Your task to perform on an android device: change keyboard looks Image 0: 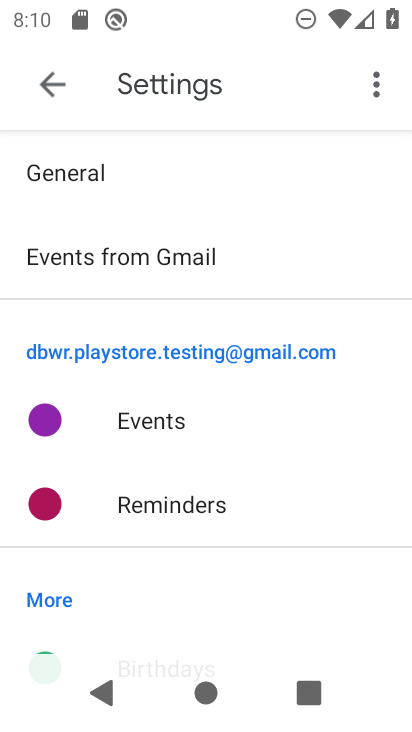
Step 0: press home button
Your task to perform on an android device: change keyboard looks Image 1: 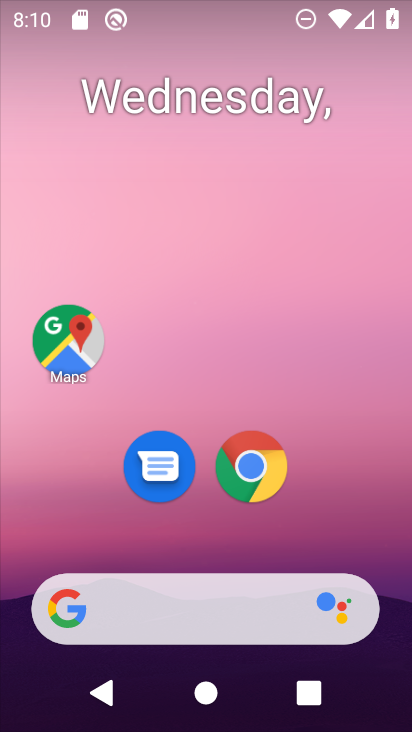
Step 1: drag from (212, 542) to (227, 169)
Your task to perform on an android device: change keyboard looks Image 2: 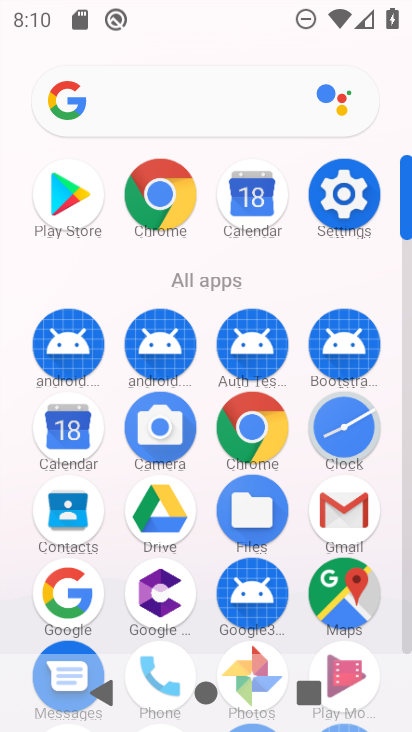
Step 2: click (337, 197)
Your task to perform on an android device: change keyboard looks Image 3: 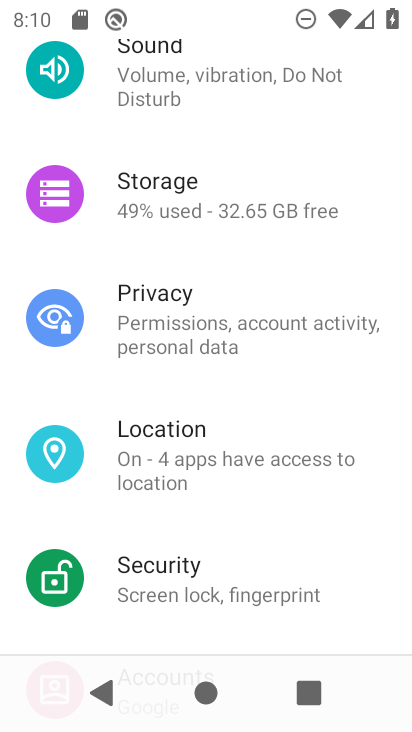
Step 3: drag from (201, 546) to (240, 215)
Your task to perform on an android device: change keyboard looks Image 4: 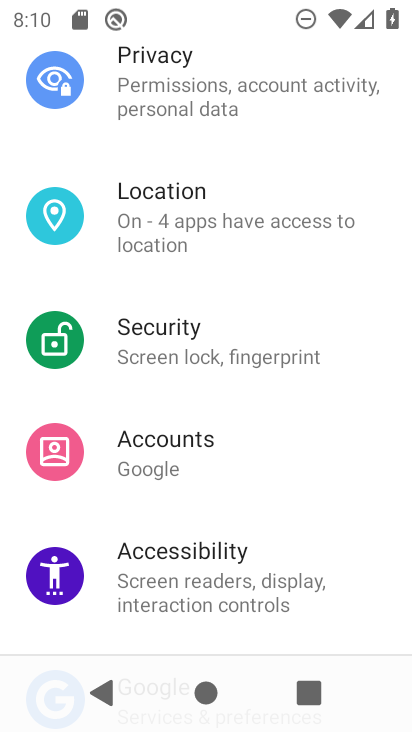
Step 4: drag from (184, 578) to (206, 203)
Your task to perform on an android device: change keyboard looks Image 5: 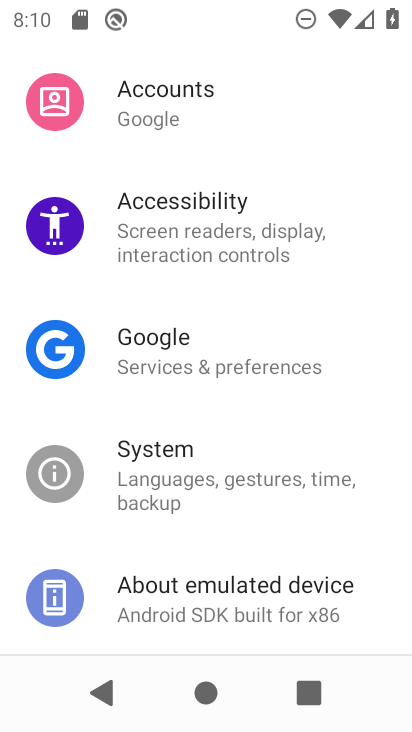
Step 5: click (167, 491)
Your task to perform on an android device: change keyboard looks Image 6: 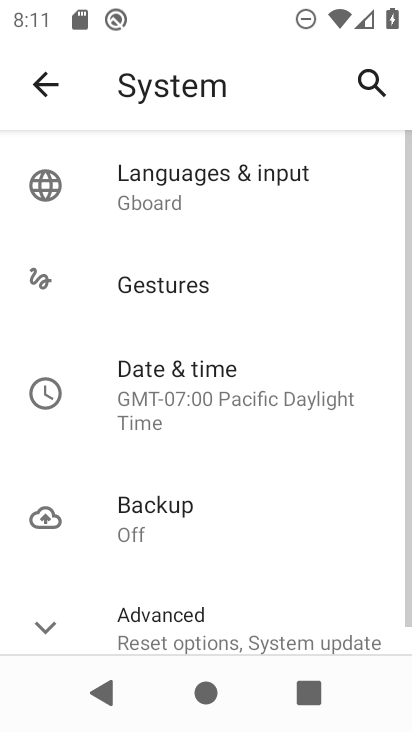
Step 6: click (192, 183)
Your task to perform on an android device: change keyboard looks Image 7: 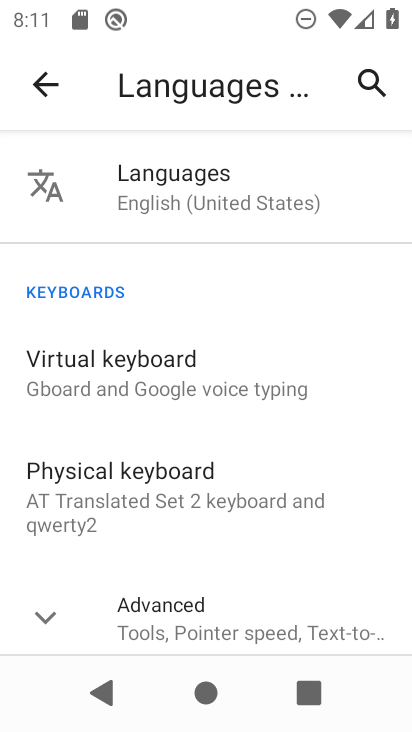
Step 7: click (157, 381)
Your task to perform on an android device: change keyboard looks Image 8: 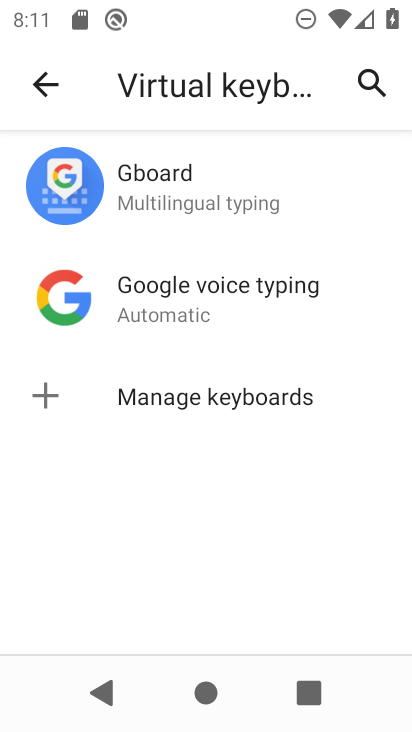
Step 8: click (190, 206)
Your task to perform on an android device: change keyboard looks Image 9: 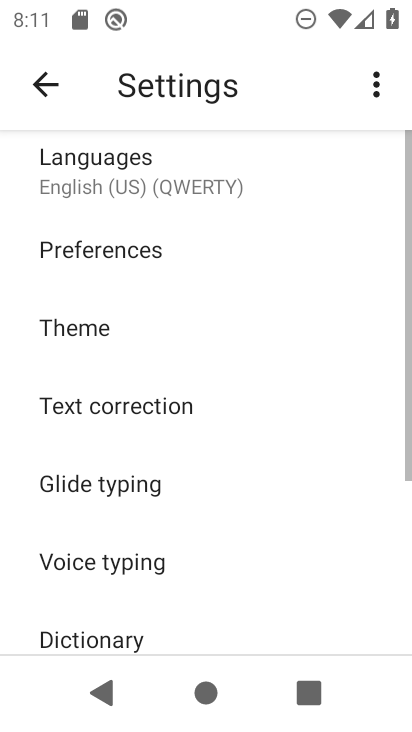
Step 9: click (81, 334)
Your task to perform on an android device: change keyboard looks Image 10: 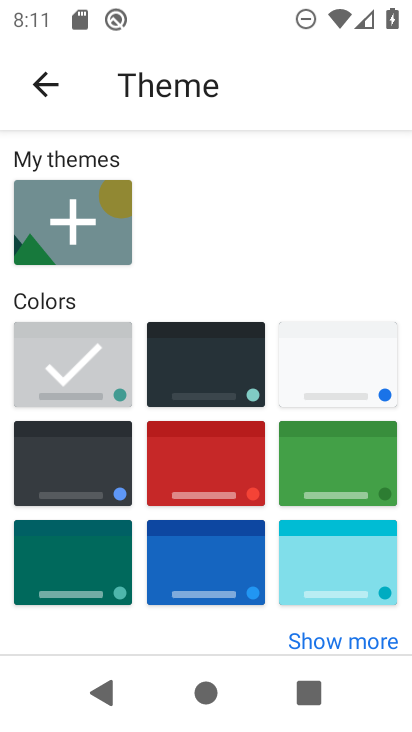
Step 10: click (196, 376)
Your task to perform on an android device: change keyboard looks Image 11: 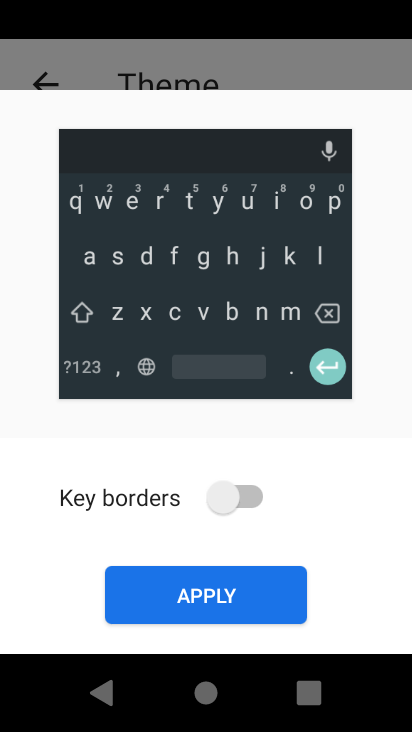
Step 11: click (197, 606)
Your task to perform on an android device: change keyboard looks Image 12: 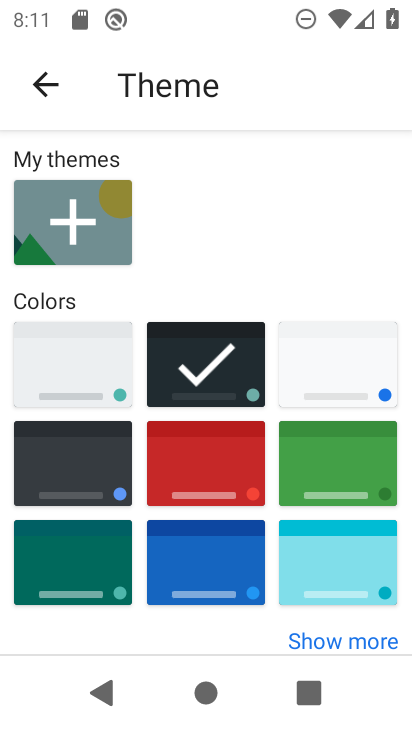
Step 12: task complete